Your task to perform on an android device: manage bookmarks in the chrome app Image 0: 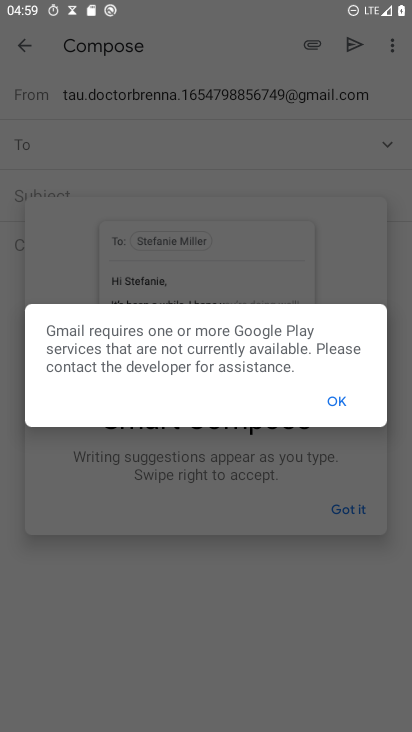
Step 0: press home button
Your task to perform on an android device: manage bookmarks in the chrome app Image 1: 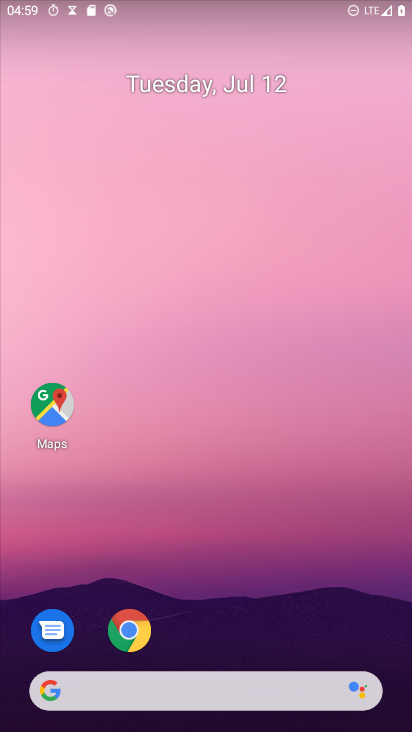
Step 1: drag from (149, 678) to (245, 30)
Your task to perform on an android device: manage bookmarks in the chrome app Image 2: 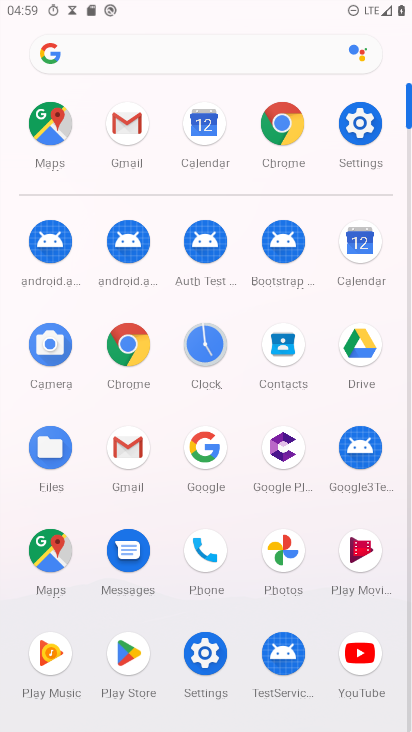
Step 2: click (130, 340)
Your task to perform on an android device: manage bookmarks in the chrome app Image 3: 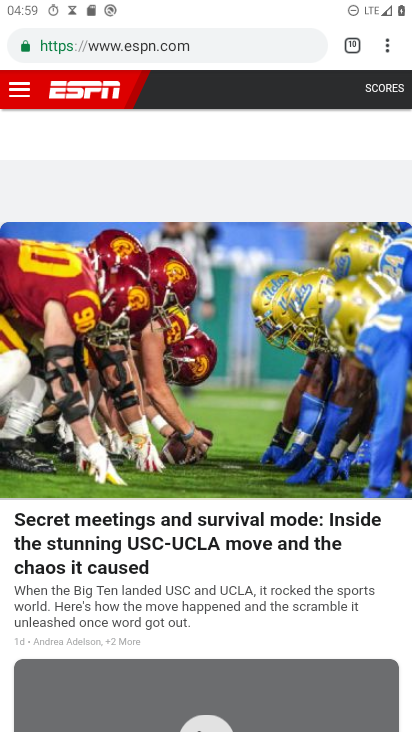
Step 3: task complete